Your task to perform on an android device: change alarm snooze length Image 0: 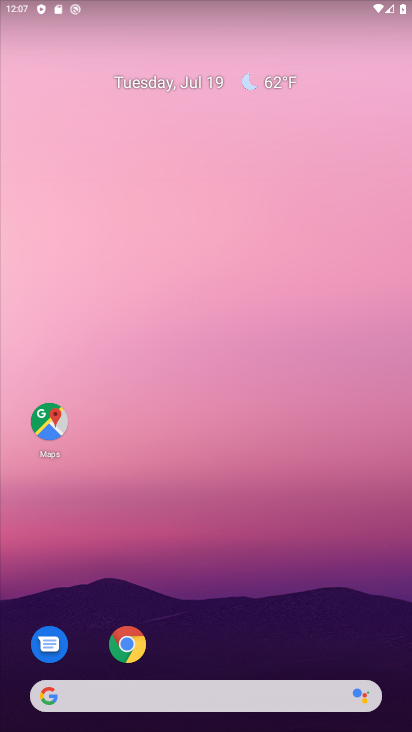
Step 0: drag from (198, 561) to (163, 14)
Your task to perform on an android device: change alarm snooze length Image 1: 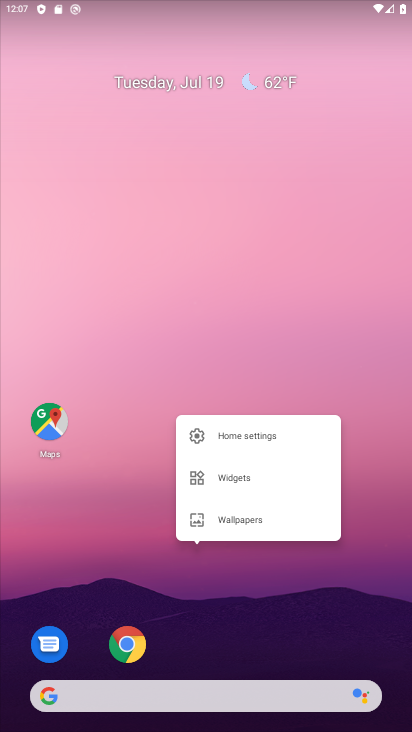
Step 1: click (180, 354)
Your task to perform on an android device: change alarm snooze length Image 2: 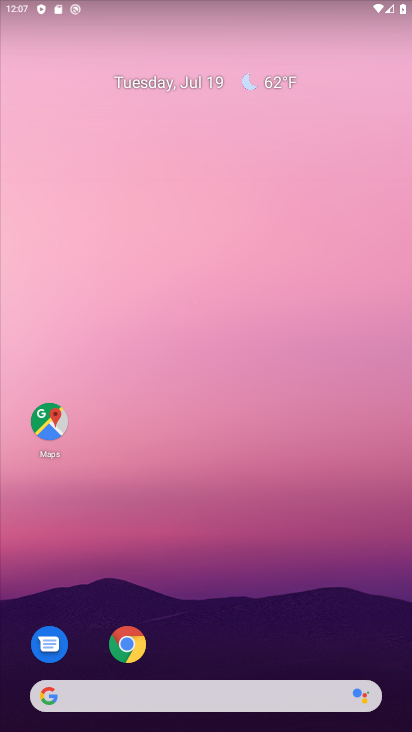
Step 2: drag from (226, 586) to (195, 111)
Your task to perform on an android device: change alarm snooze length Image 3: 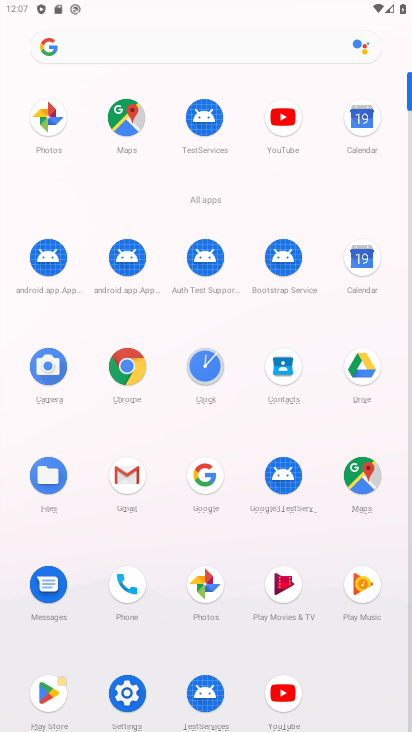
Step 3: click (210, 372)
Your task to perform on an android device: change alarm snooze length Image 4: 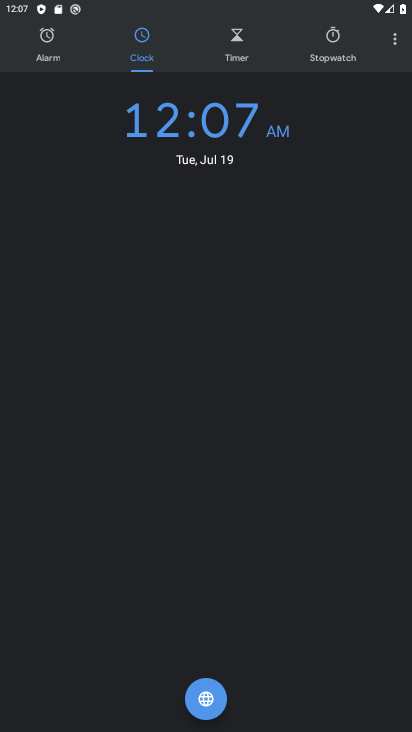
Step 4: click (397, 42)
Your task to perform on an android device: change alarm snooze length Image 5: 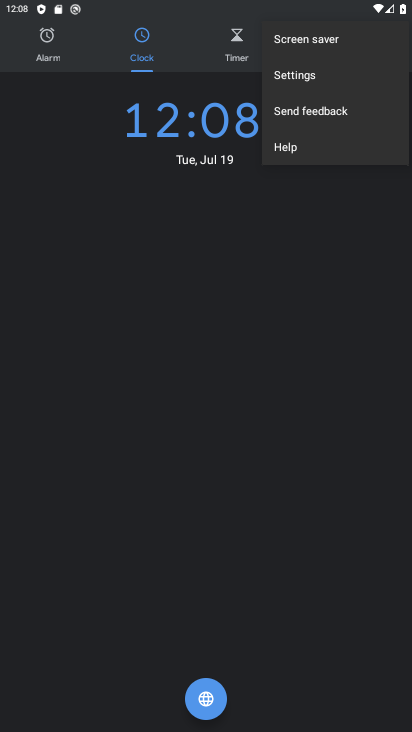
Step 5: click (301, 78)
Your task to perform on an android device: change alarm snooze length Image 6: 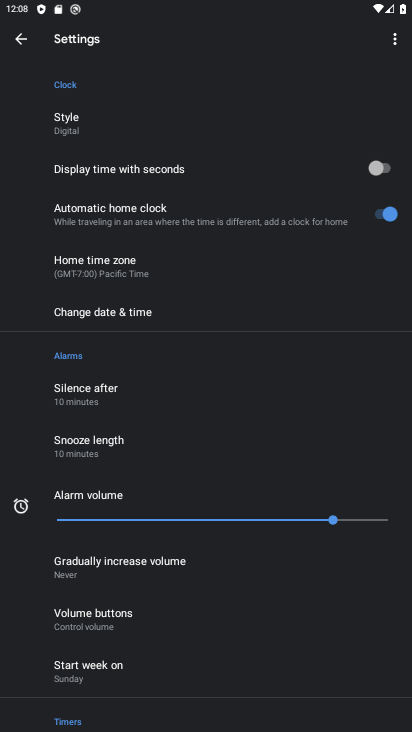
Step 6: click (90, 439)
Your task to perform on an android device: change alarm snooze length Image 7: 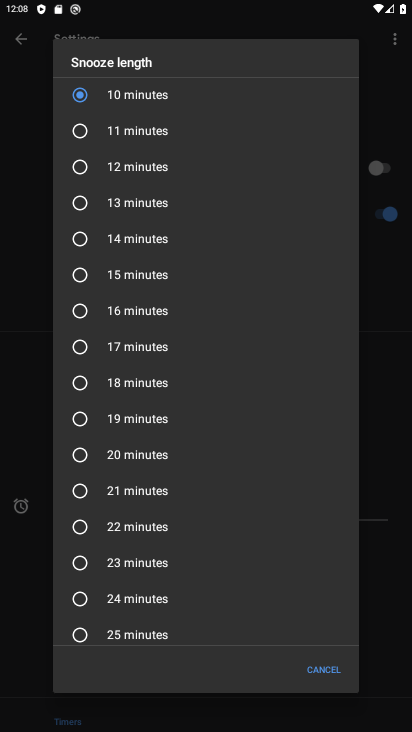
Step 7: click (83, 130)
Your task to perform on an android device: change alarm snooze length Image 8: 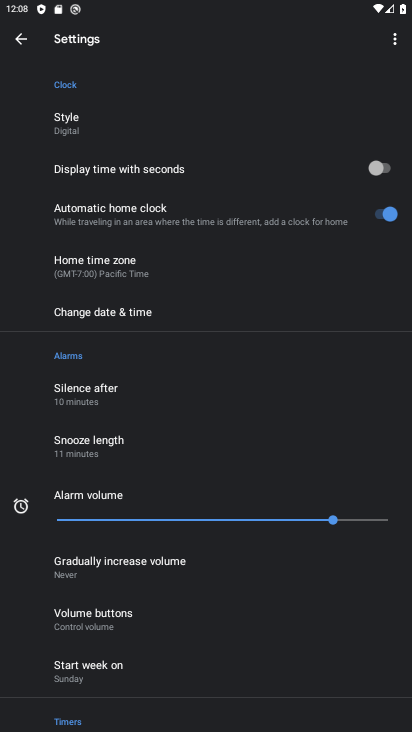
Step 8: task complete